Your task to perform on an android device: Go to battery settings Image 0: 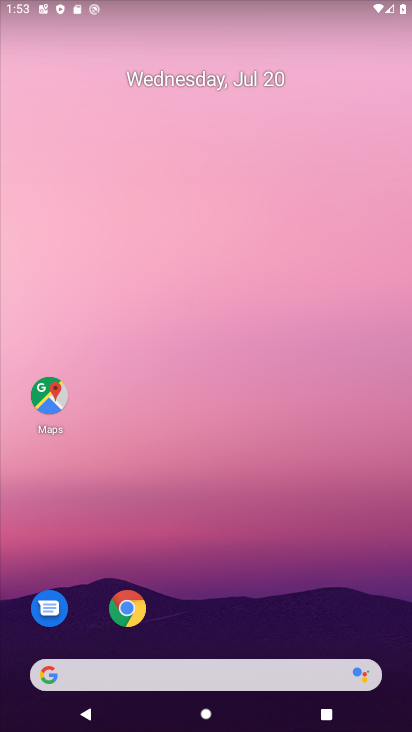
Step 0: task complete